Your task to perform on an android device: open app "Google News" (install if not already installed) Image 0: 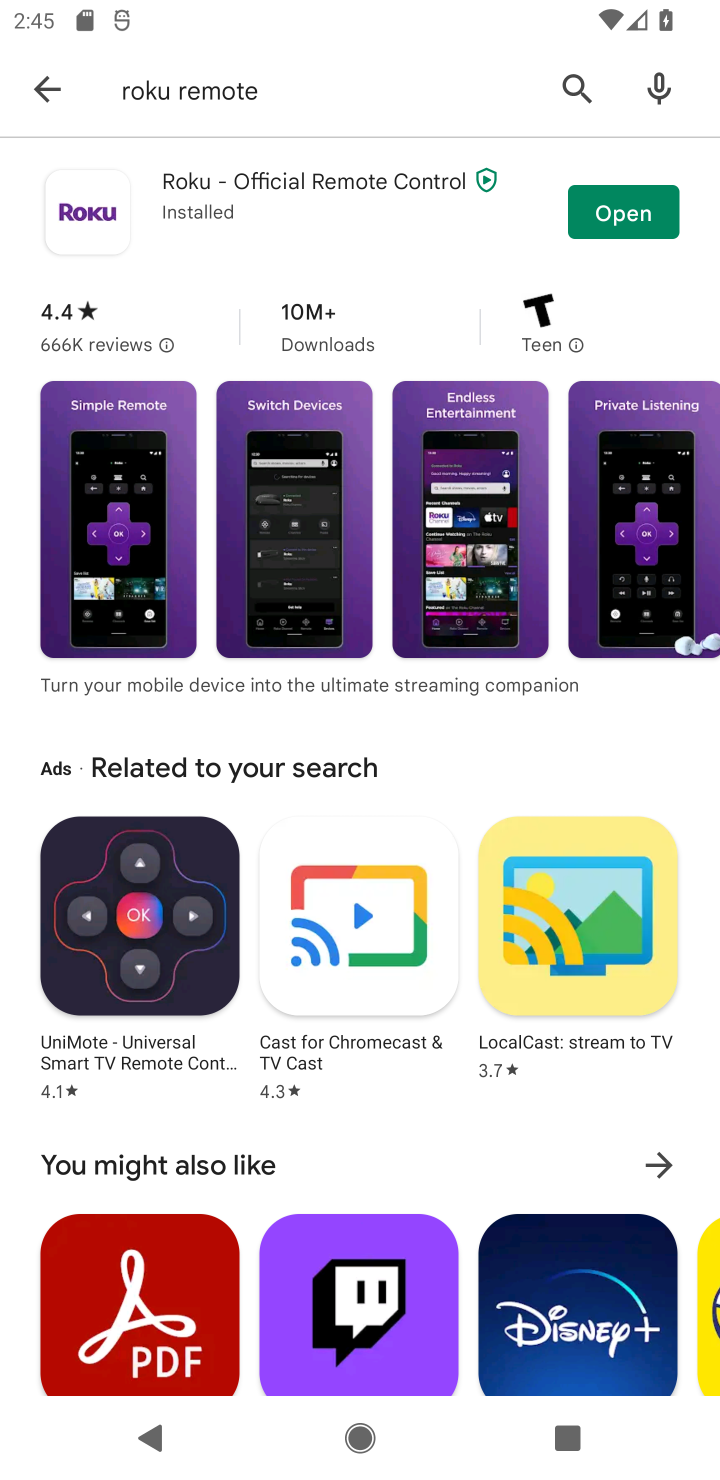
Step 0: press home button
Your task to perform on an android device: open app "Google News" (install if not already installed) Image 1: 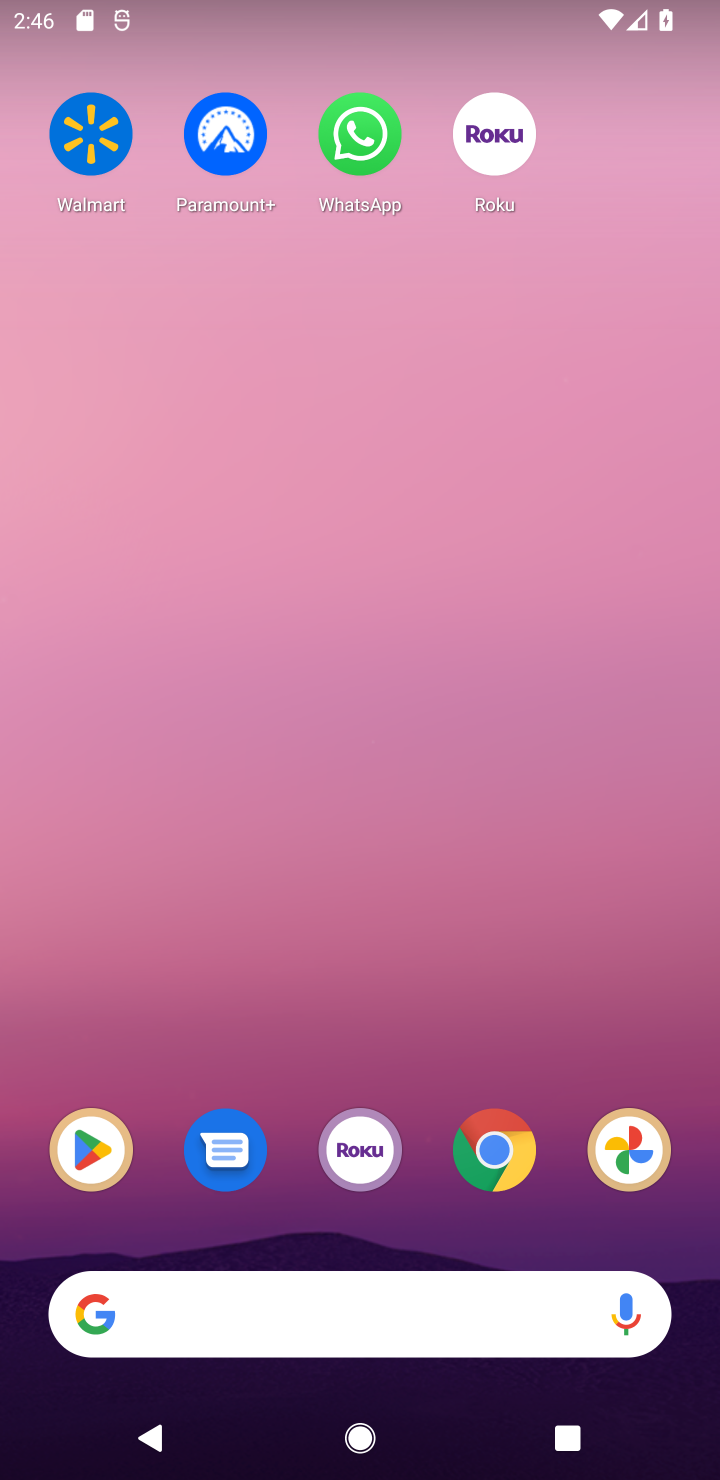
Step 1: drag from (420, 1236) to (389, 170)
Your task to perform on an android device: open app "Google News" (install if not already installed) Image 2: 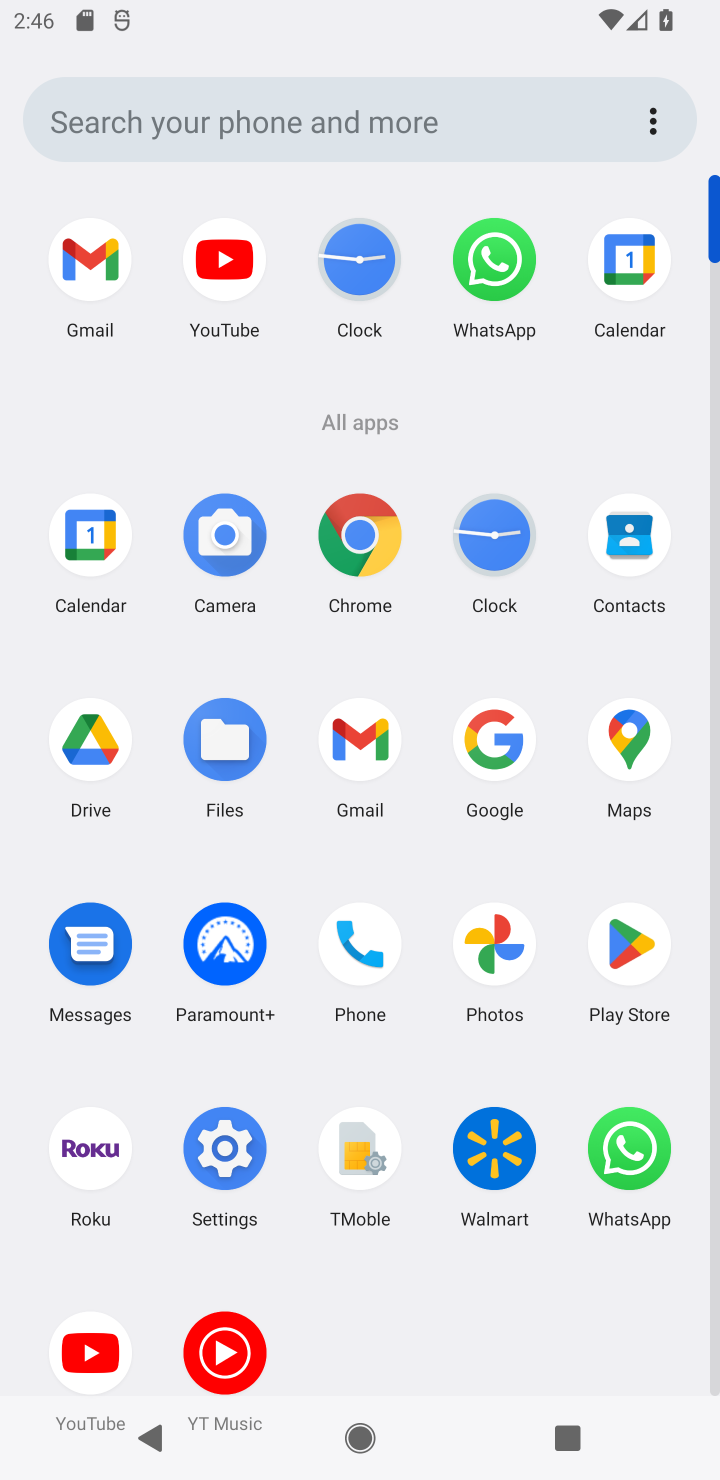
Step 2: click (605, 957)
Your task to perform on an android device: open app "Google News" (install if not already installed) Image 3: 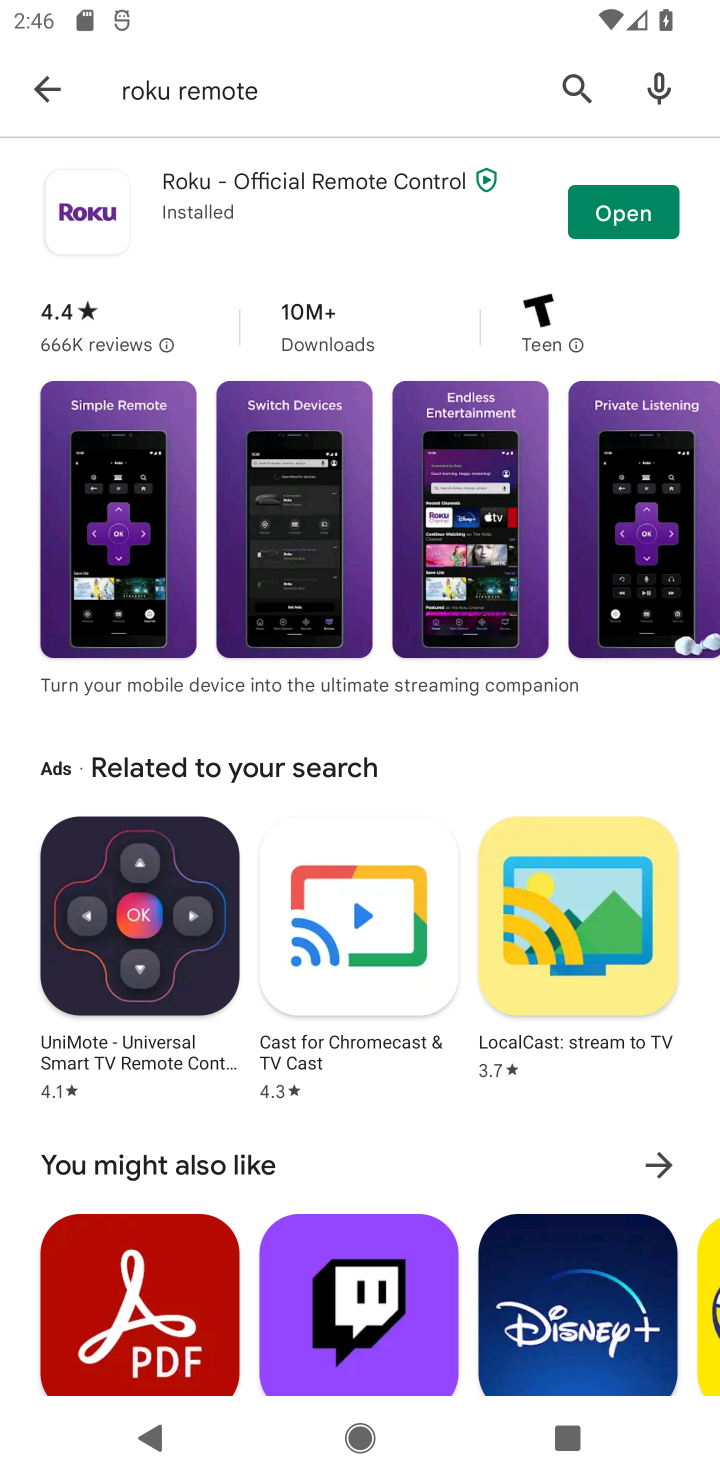
Step 3: click (447, 86)
Your task to perform on an android device: open app "Google News" (install if not already installed) Image 4: 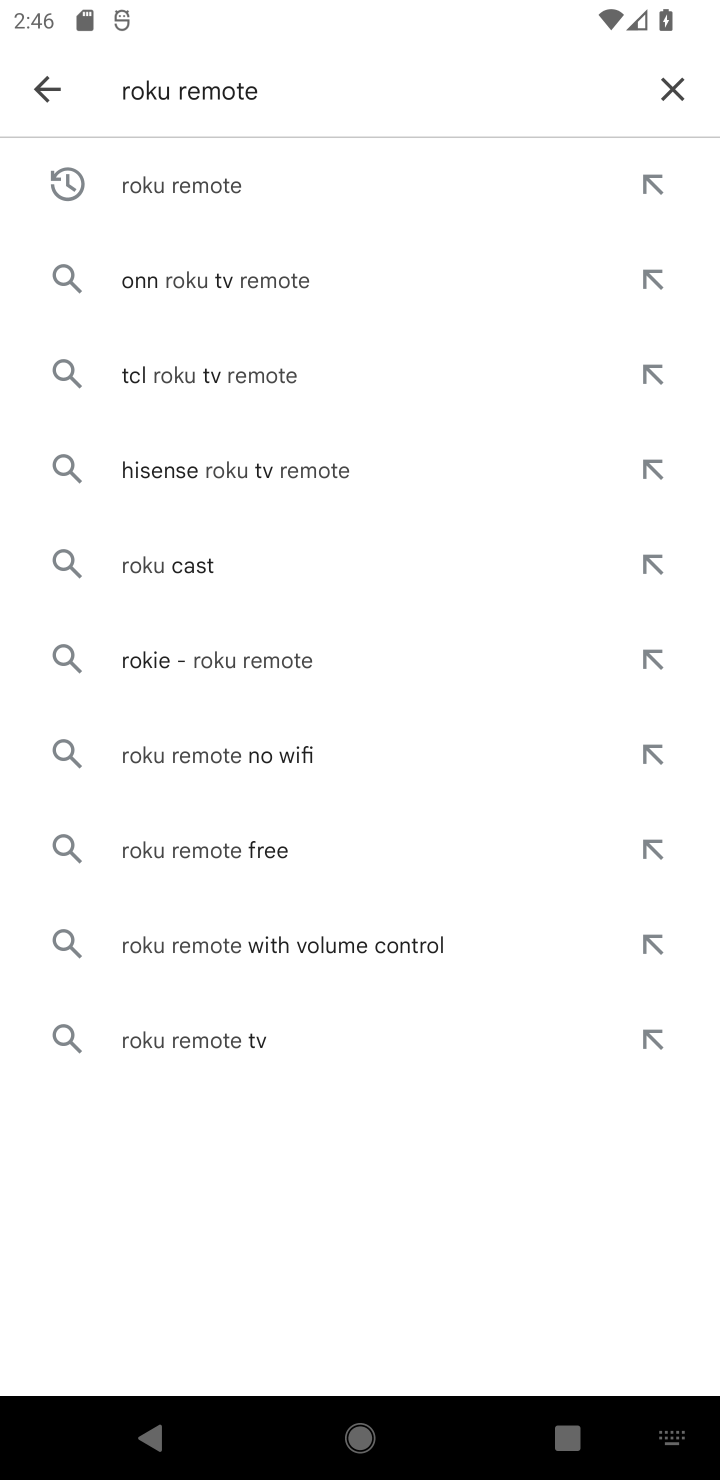
Step 4: click (674, 93)
Your task to perform on an android device: open app "Google News" (install if not already installed) Image 5: 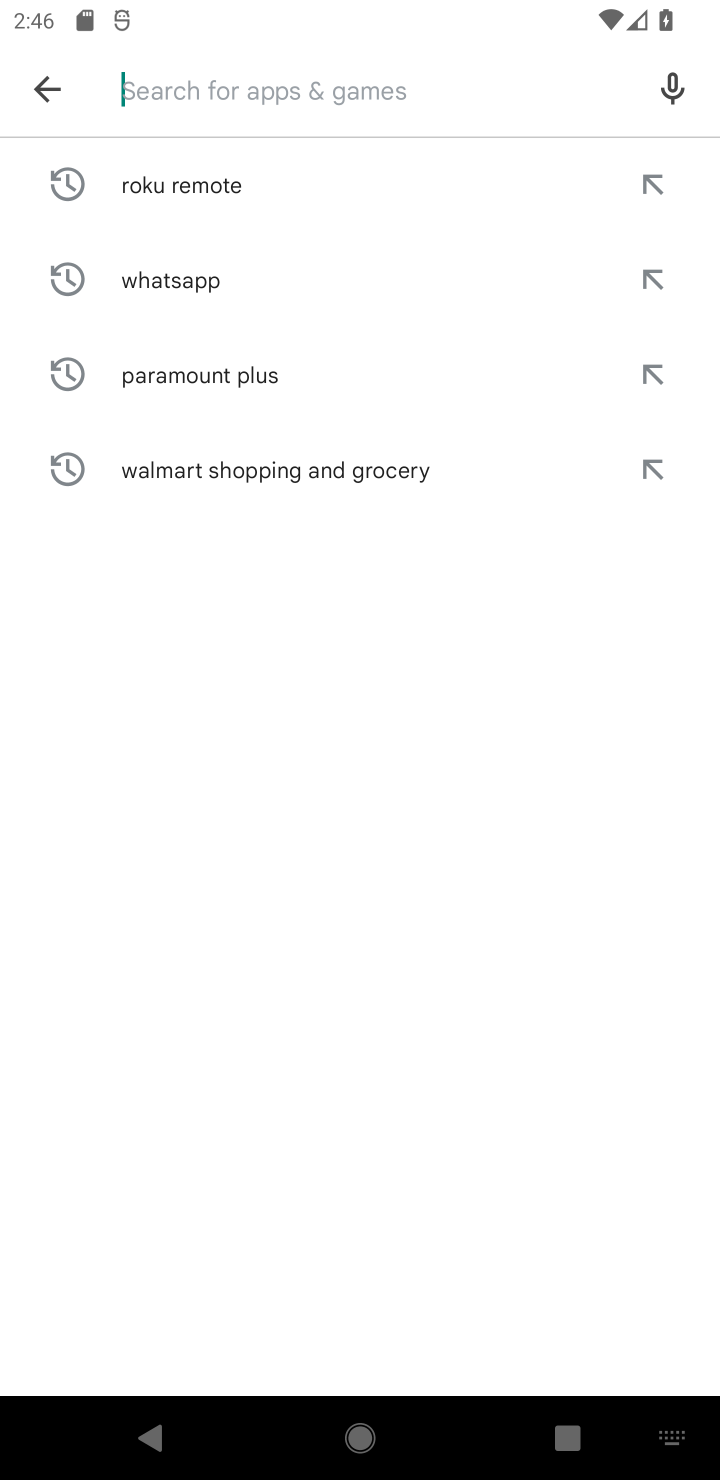
Step 5: type "google news"
Your task to perform on an android device: open app "Google News" (install if not already installed) Image 6: 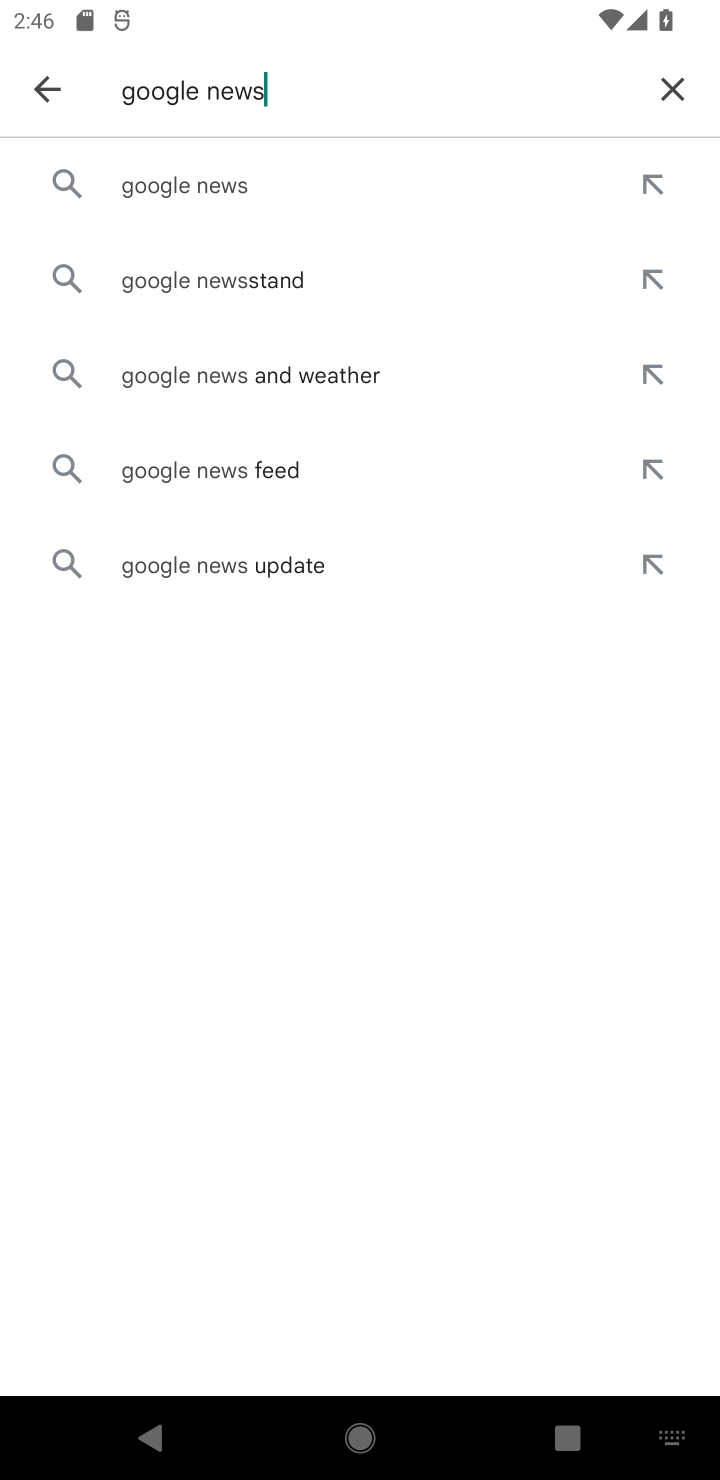
Step 6: click (352, 188)
Your task to perform on an android device: open app "Google News" (install if not already installed) Image 7: 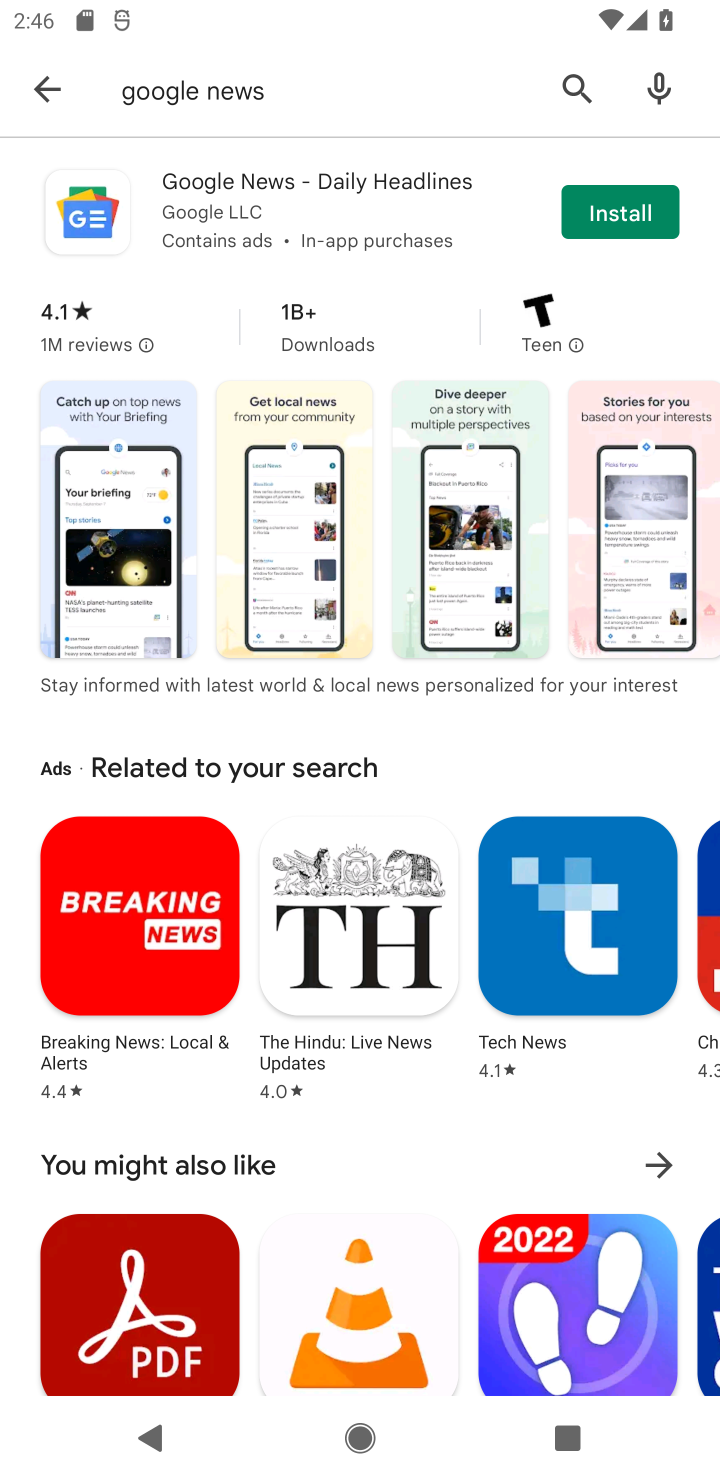
Step 7: click (585, 196)
Your task to perform on an android device: open app "Google News" (install if not already installed) Image 8: 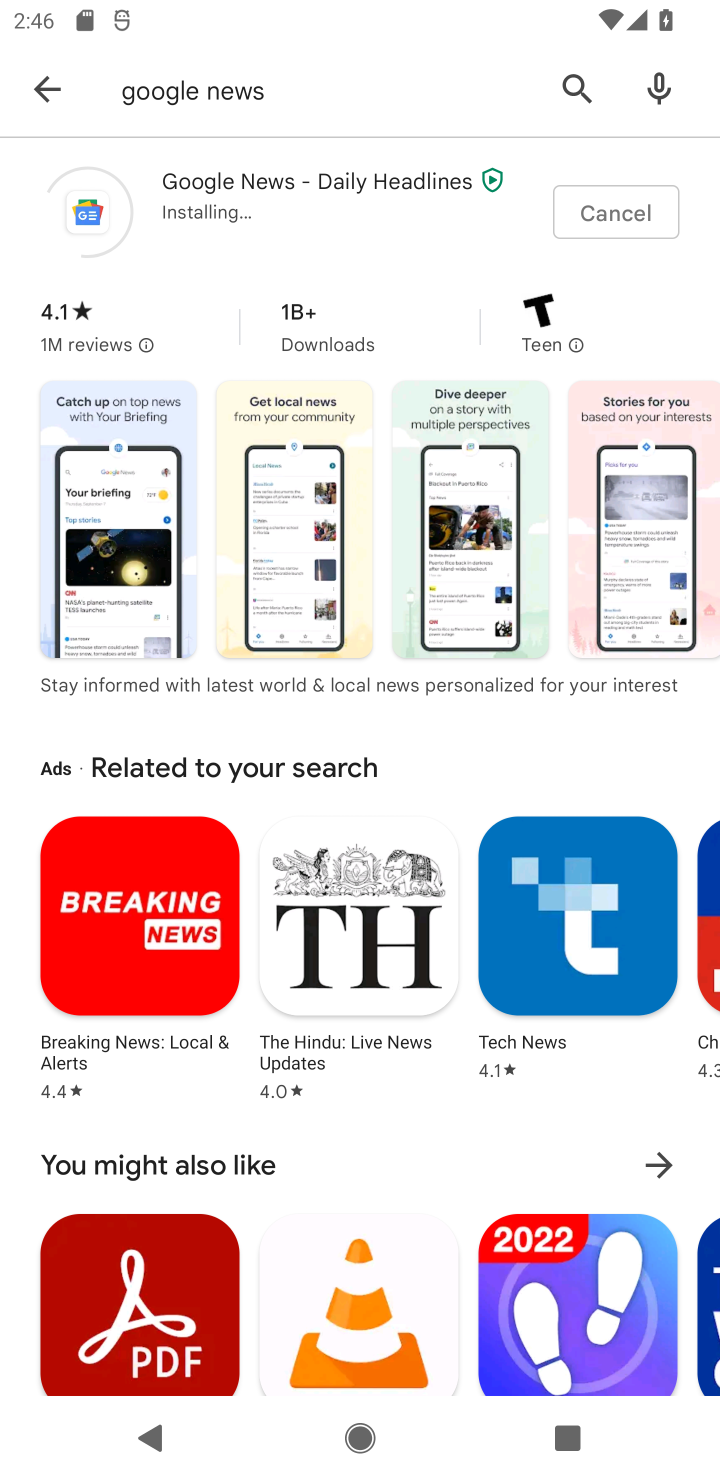
Step 8: task complete